Your task to perform on an android device: Show me popular videos on Youtube Image 0: 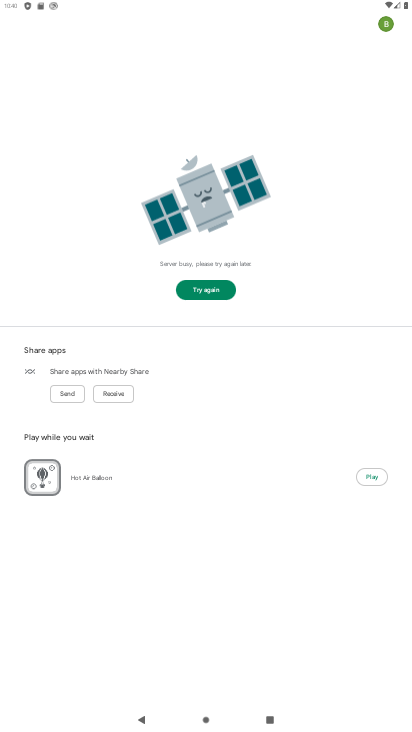
Step 0: press home button
Your task to perform on an android device: Show me popular videos on Youtube Image 1: 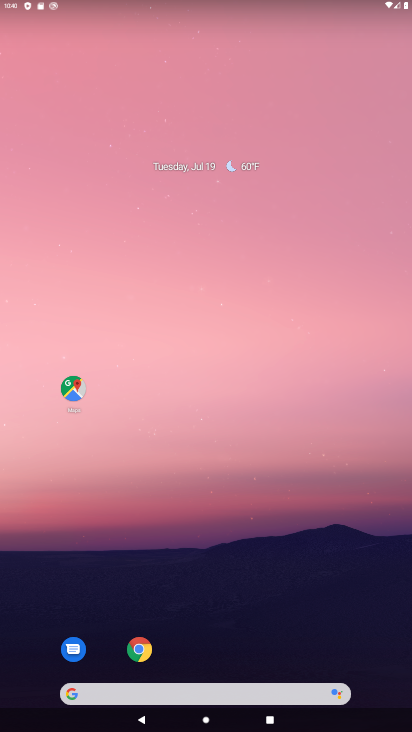
Step 1: drag from (263, 683) to (309, 180)
Your task to perform on an android device: Show me popular videos on Youtube Image 2: 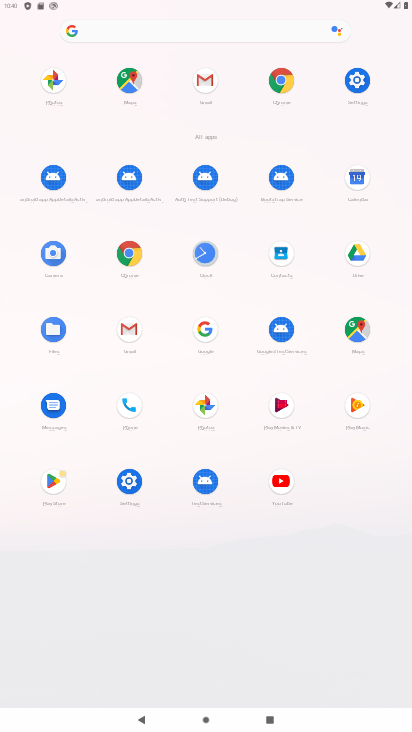
Step 2: click (287, 479)
Your task to perform on an android device: Show me popular videos on Youtube Image 3: 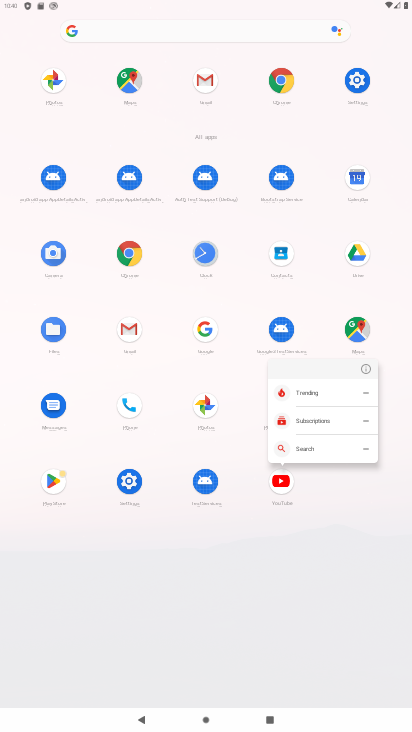
Step 3: click (287, 479)
Your task to perform on an android device: Show me popular videos on Youtube Image 4: 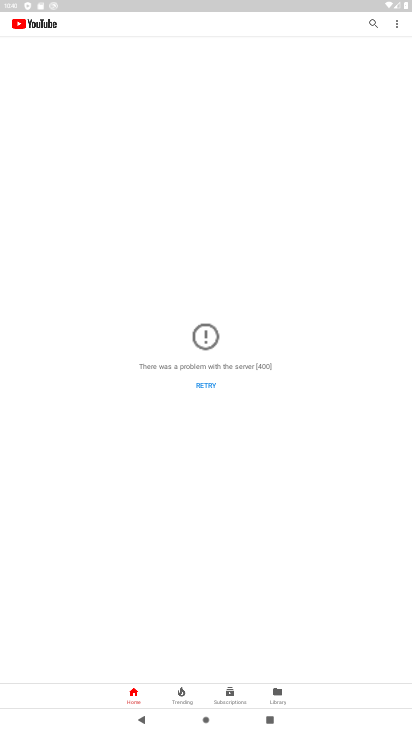
Step 4: click (282, 692)
Your task to perform on an android device: Show me popular videos on Youtube Image 5: 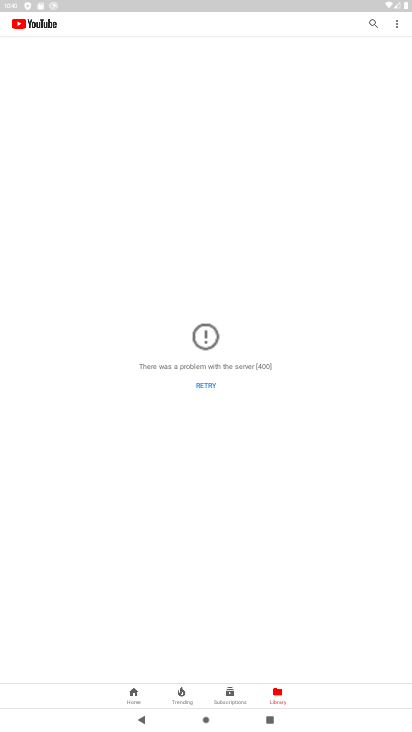
Step 5: task complete